Your task to perform on an android device: What's the weather going to be tomorrow? Image 0: 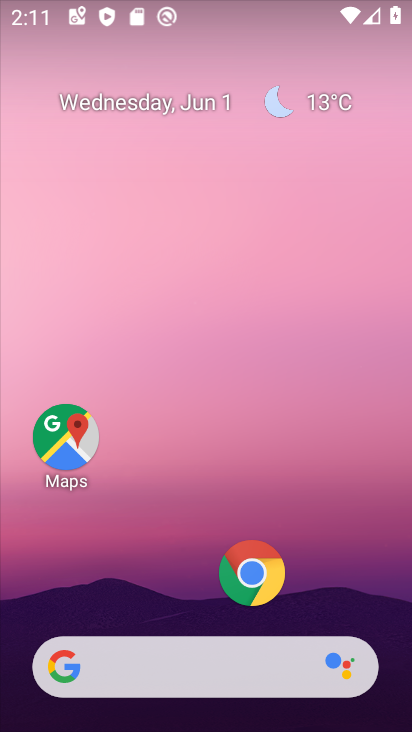
Step 0: click (262, 665)
Your task to perform on an android device: What's the weather going to be tomorrow? Image 1: 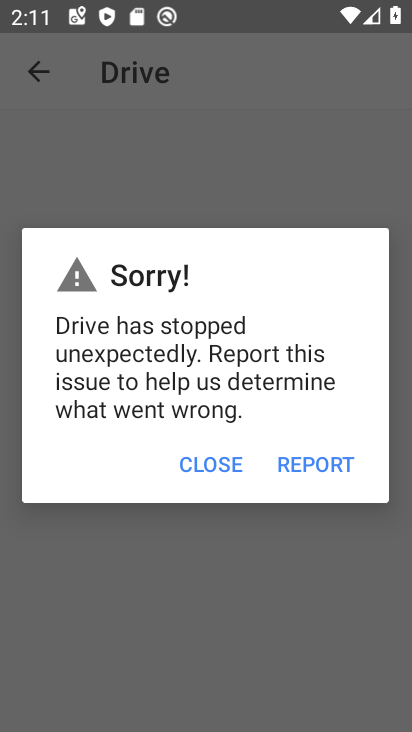
Step 1: press home button
Your task to perform on an android device: What's the weather going to be tomorrow? Image 2: 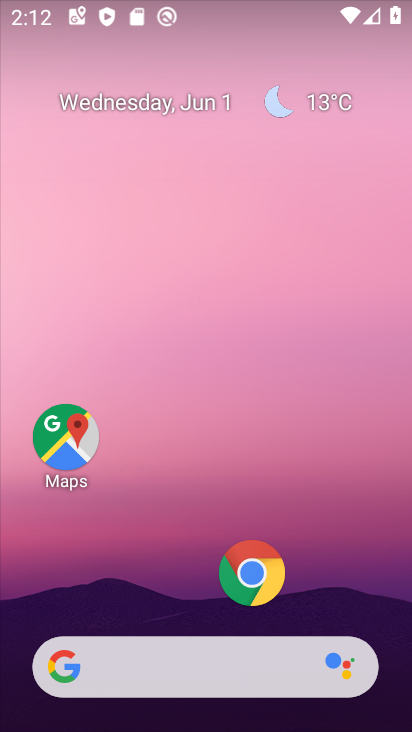
Step 2: click (190, 634)
Your task to perform on an android device: What's the weather going to be tomorrow? Image 3: 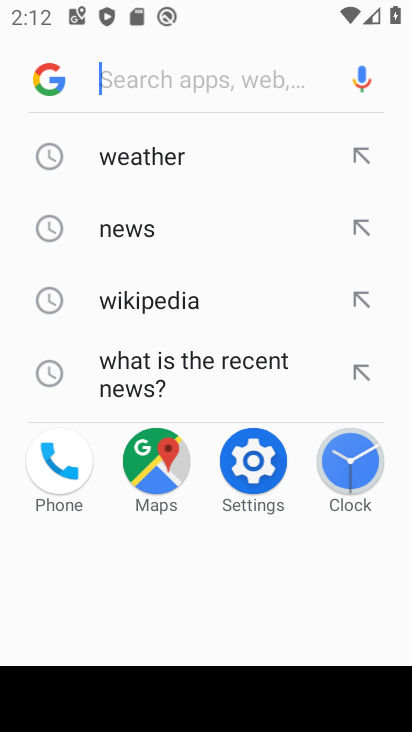
Step 3: click (96, 151)
Your task to perform on an android device: What's the weather going to be tomorrow? Image 4: 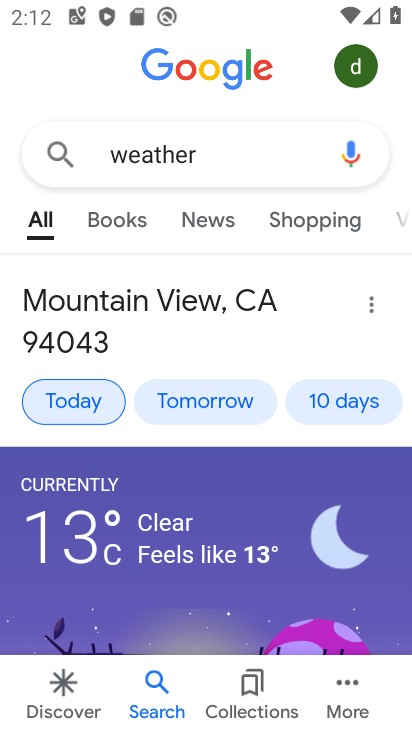
Step 4: click (156, 400)
Your task to perform on an android device: What's the weather going to be tomorrow? Image 5: 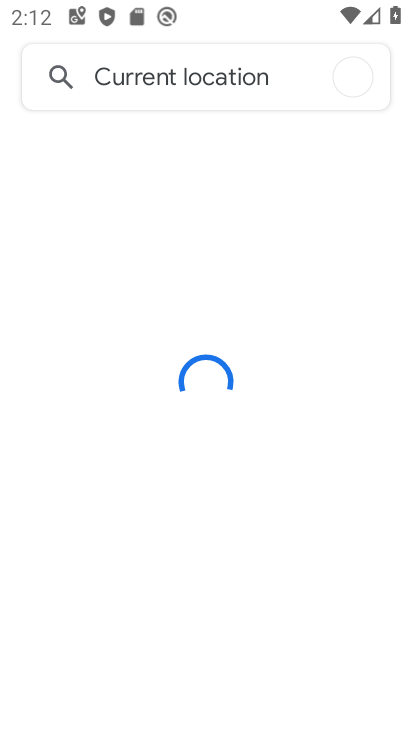
Step 5: click (194, 404)
Your task to perform on an android device: What's the weather going to be tomorrow? Image 6: 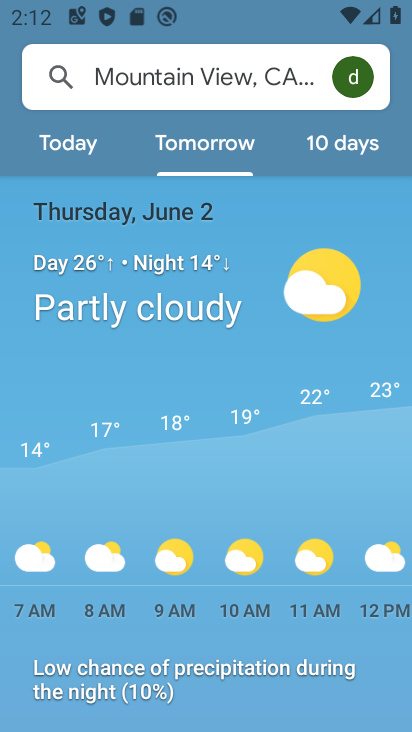
Step 6: task complete